Your task to perform on an android device: Open Chrome and go to the settings page Image 0: 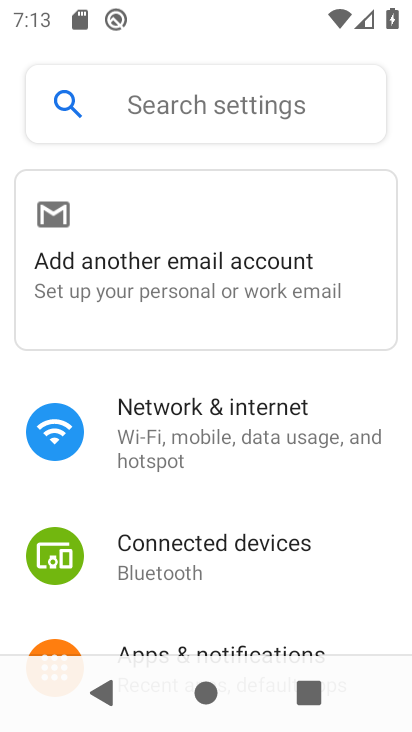
Step 0: press home button
Your task to perform on an android device: Open Chrome and go to the settings page Image 1: 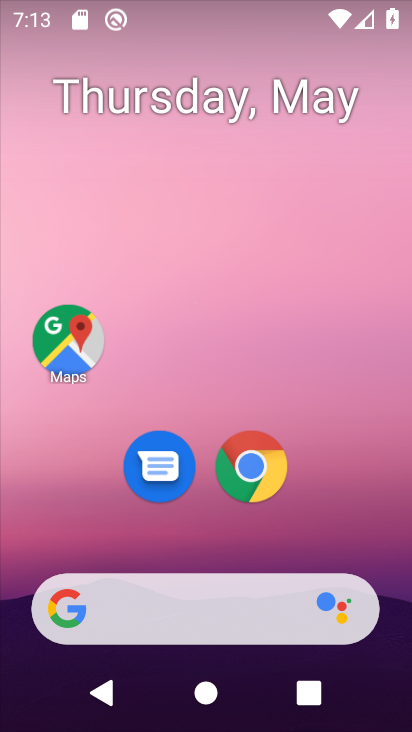
Step 1: click (256, 469)
Your task to perform on an android device: Open Chrome and go to the settings page Image 2: 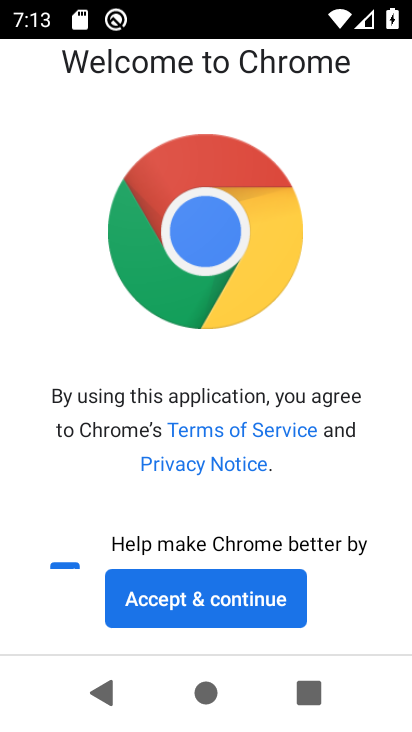
Step 2: click (167, 588)
Your task to perform on an android device: Open Chrome and go to the settings page Image 3: 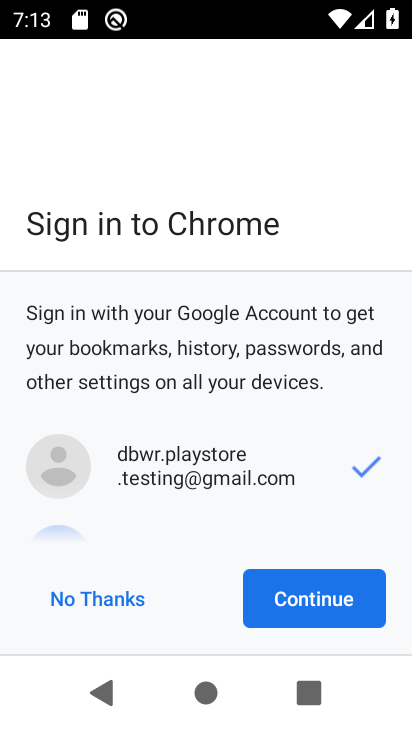
Step 3: click (348, 596)
Your task to perform on an android device: Open Chrome and go to the settings page Image 4: 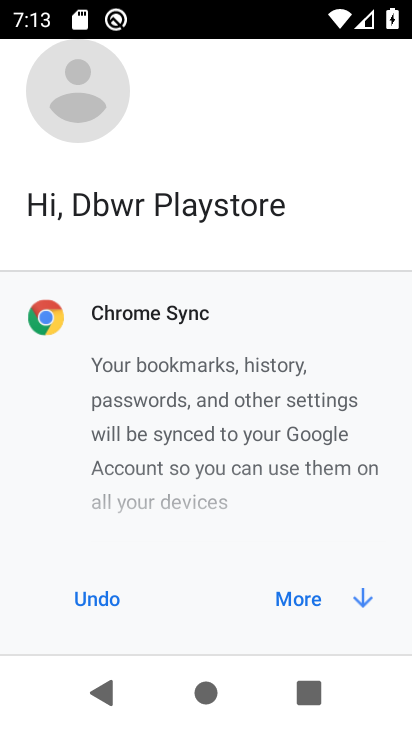
Step 4: click (348, 596)
Your task to perform on an android device: Open Chrome and go to the settings page Image 5: 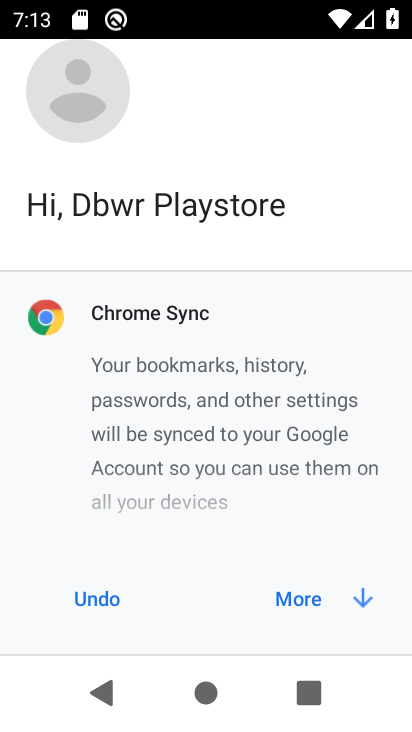
Step 5: click (348, 596)
Your task to perform on an android device: Open Chrome and go to the settings page Image 6: 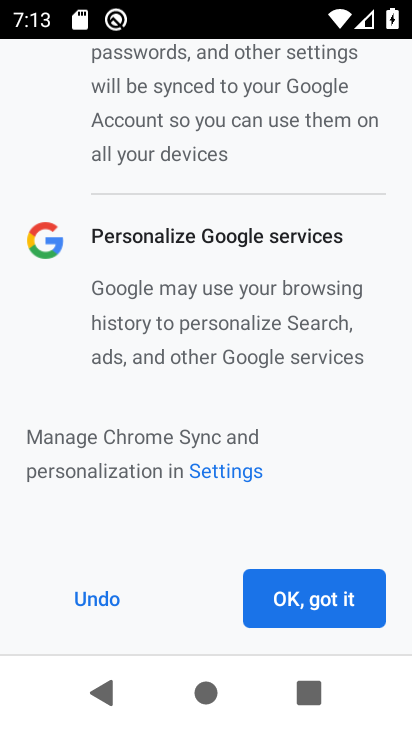
Step 6: click (348, 596)
Your task to perform on an android device: Open Chrome and go to the settings page Image 7: 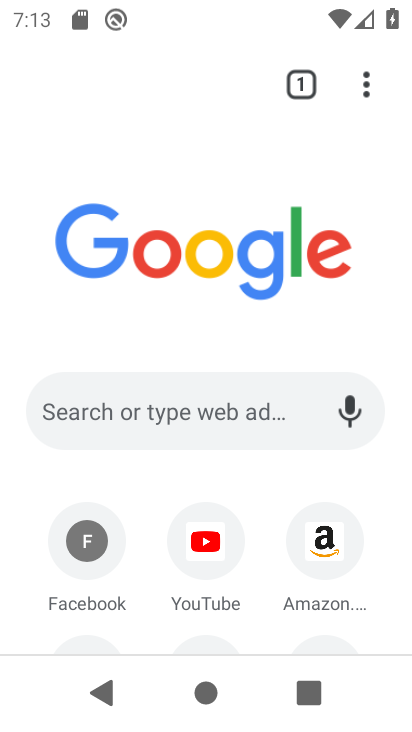
Step 7: click (366, 97)
Your task to perform on an android device: Open Chrome and go to the settings page Image 8: 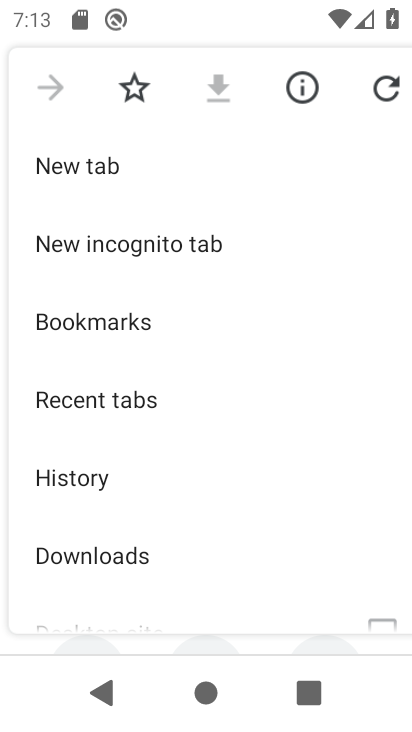
Step 8: drag from (135, 532) to (103, 244)
Your task to perform on an android device: Open Chrome and go to the settings page Image 9: 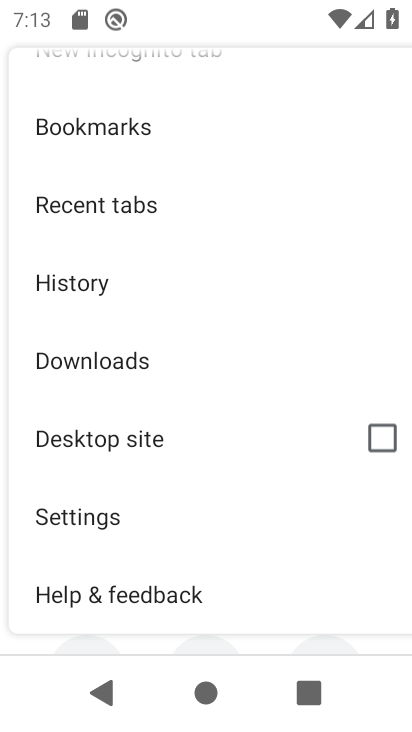
Step 9: click (121, 530)
Your task to perform on an android device: Open Chrome and go to the settings page Image 10: 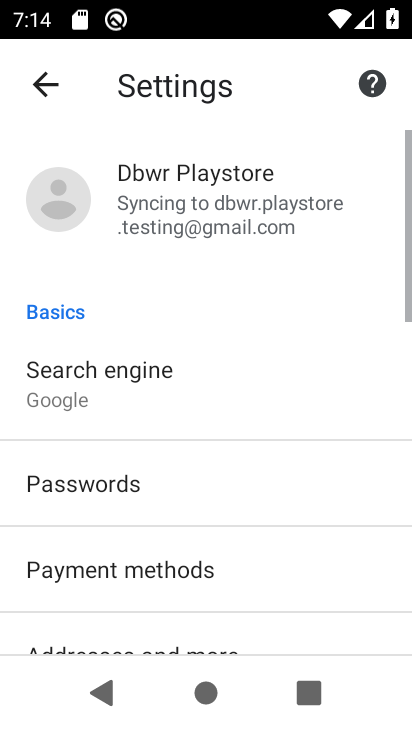
Step 10: task complete